Your task to perform on an android device: Turn off the flashlight Image 0: 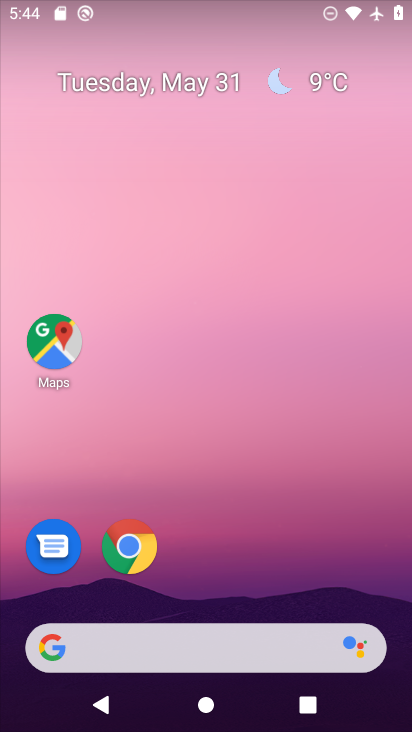
Step 0: drag from (223, 0) to (246, 521)
Your task to perform on an android device: Turn off the flashlight Image 1: 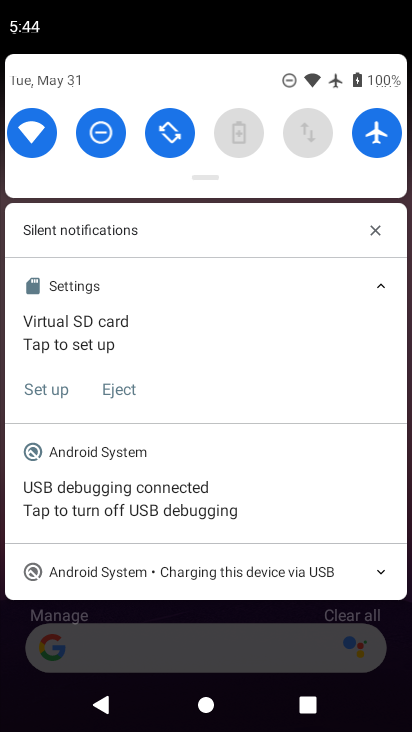
Step 1: task complete